Your task to perform on an android device: Go to Google Image 0: 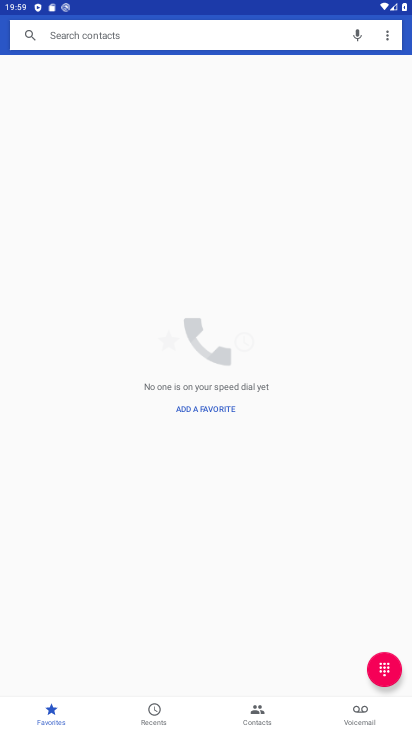
Step 0: press home button
Your task to perform on an android device: Go to Google Image 1: 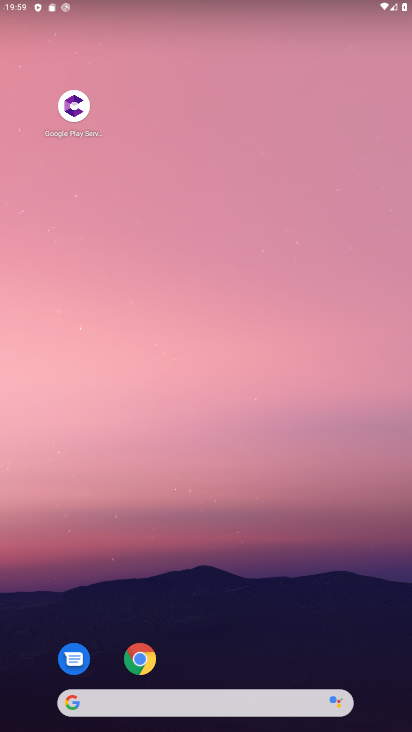
Step 1: drag from (367, 632) to (372, 128)
Your task to perform on an android device: Go to Google Image 2: 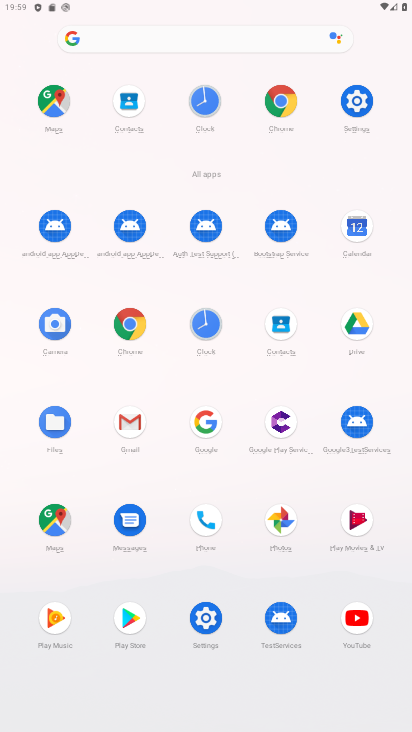
Step 2: click (207, 425)
Your task to perform on an android device: Go to Google Image 3: 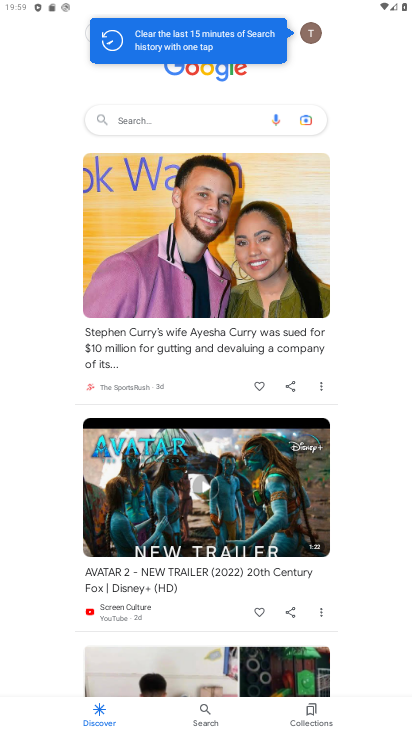
Step 3: task complete